Your task to perform on an android device: toggle location history Image 0: 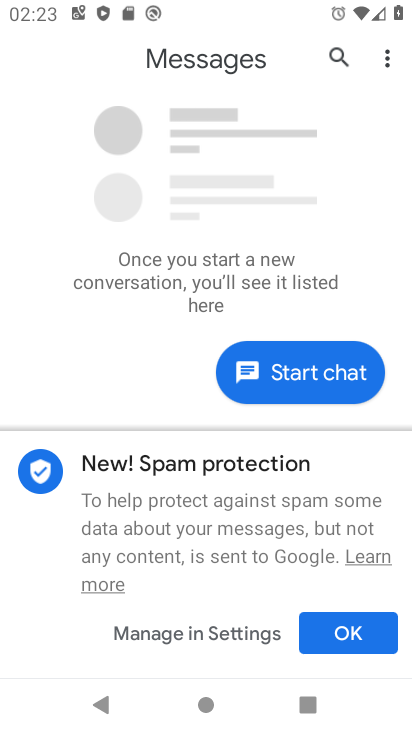
Step 0: press home button
Your task to perform on an android device: toggle location history Image 1: 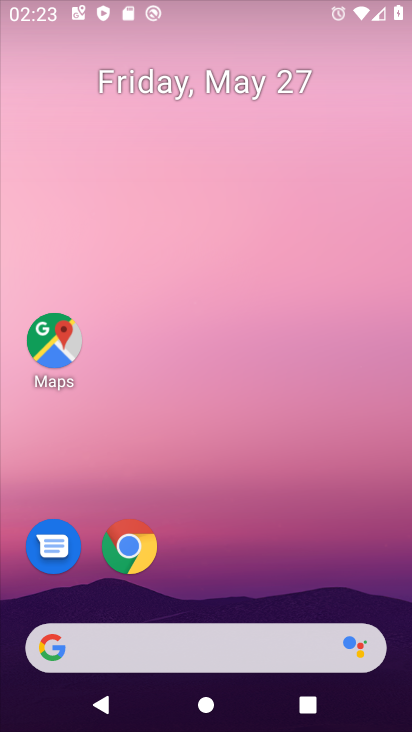
Step 1: drag from (279, 669) to (392, 165)
Your task to perform on an android device: toggle location history Image 2: 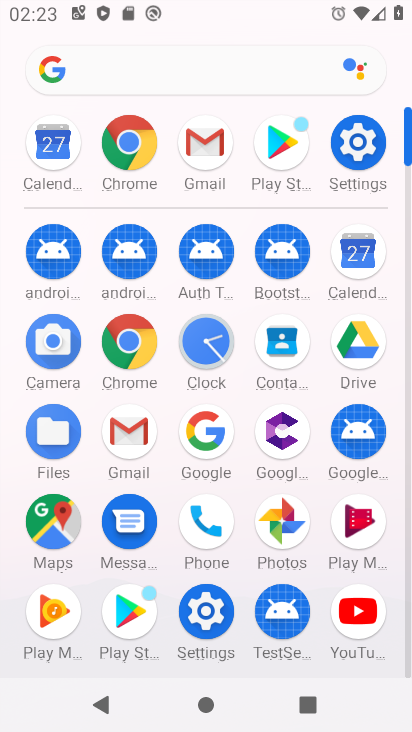
Step 2: click (358, 141)
Your task to perform on an android device: toggle location history Image 3: 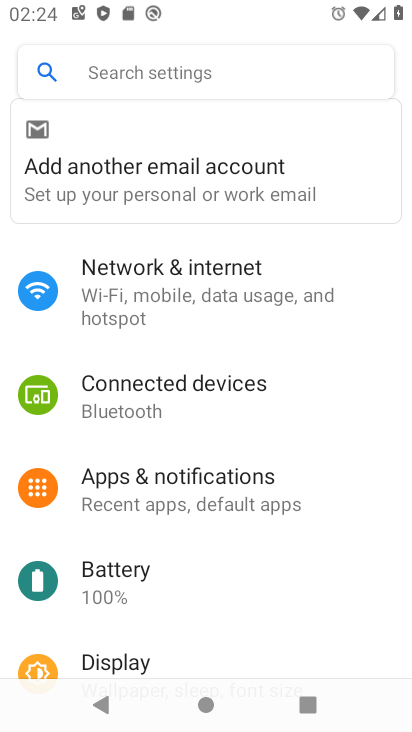
Step 3: click (185, 82)
Your task to perform on an android device: toggle location history Image 4: 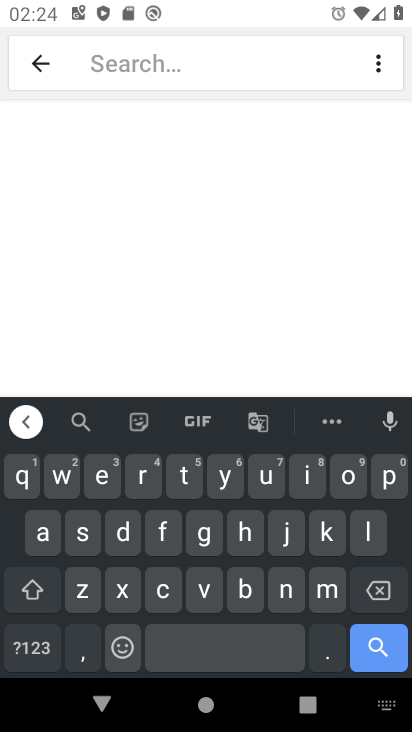
Step 4: click (368, 527)
Your task to perform on an android device: toggle location history Image 5: 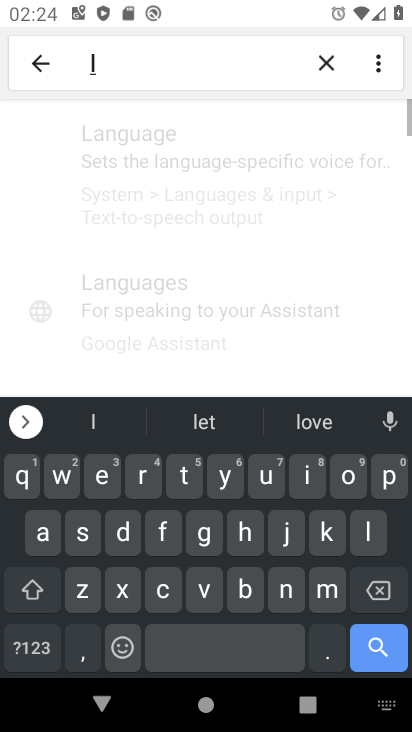
Step 5: click (336, 474)
Your task to perform on an android device: toggle location history Image 6: 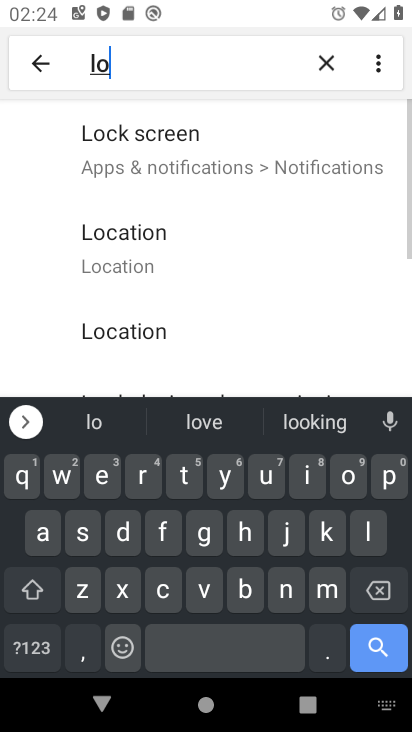
Step 6: click (134, 240)
Your task to perform on an android device: toggle location history Image 7: 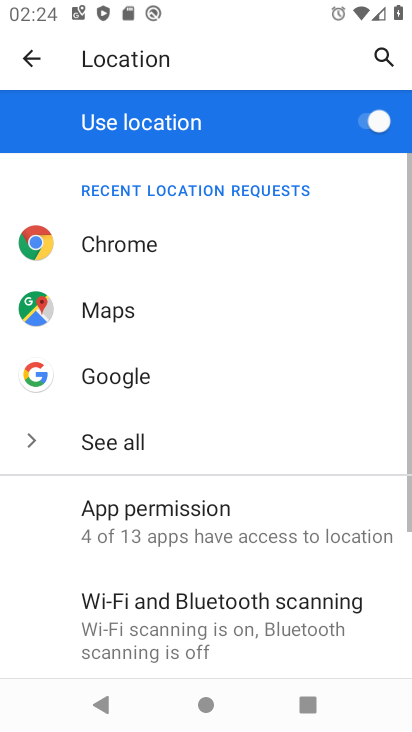
Step 7: click (190, 201)
Your task to perform on an android device: toggle location history Image 8: 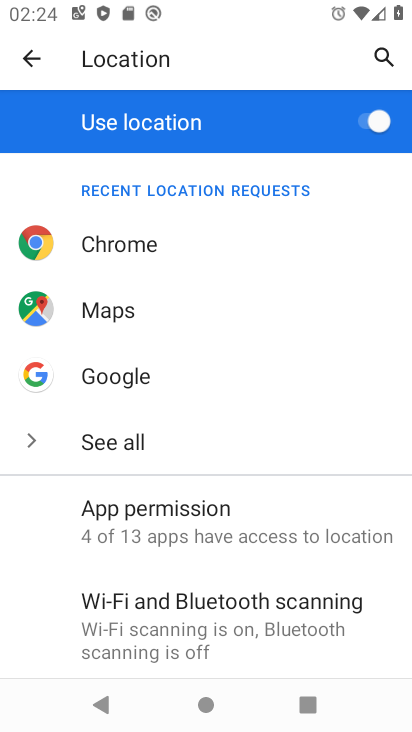
Step 8: drag from (95, 602) to (167, 233)
Your task to perform on an android device: toggle location history Image 9: 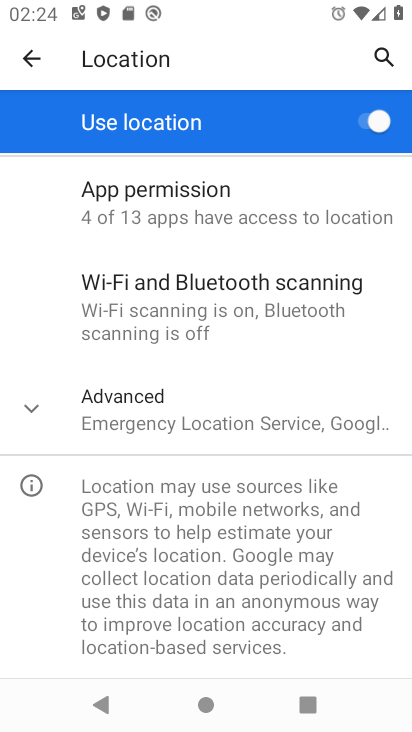
Step 9: click (42, 422)
Your task to perform on an android device: toggle location history Image 10: 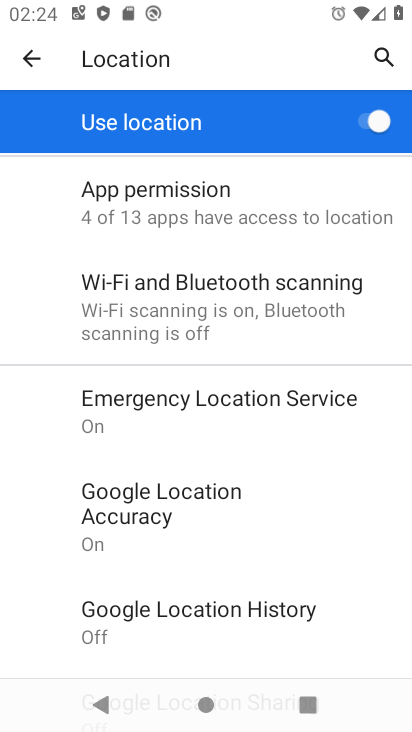
Step 10: click (219, 627)
Your task to perform on an android device: toggle location history Image 11: 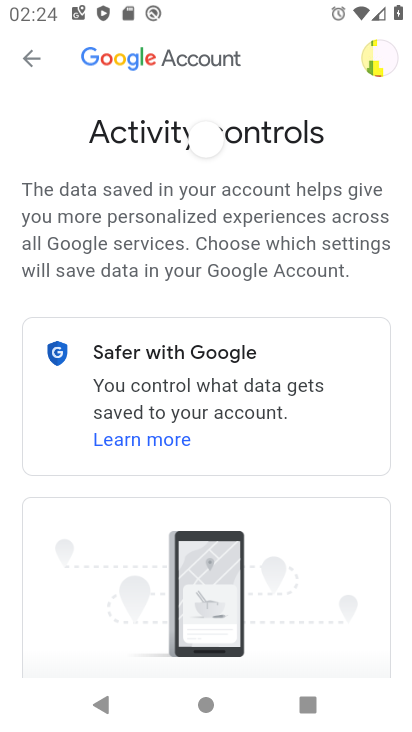
Step 11: task complete